Your task to perform on an android device: What's on my calendar today? Image 0: 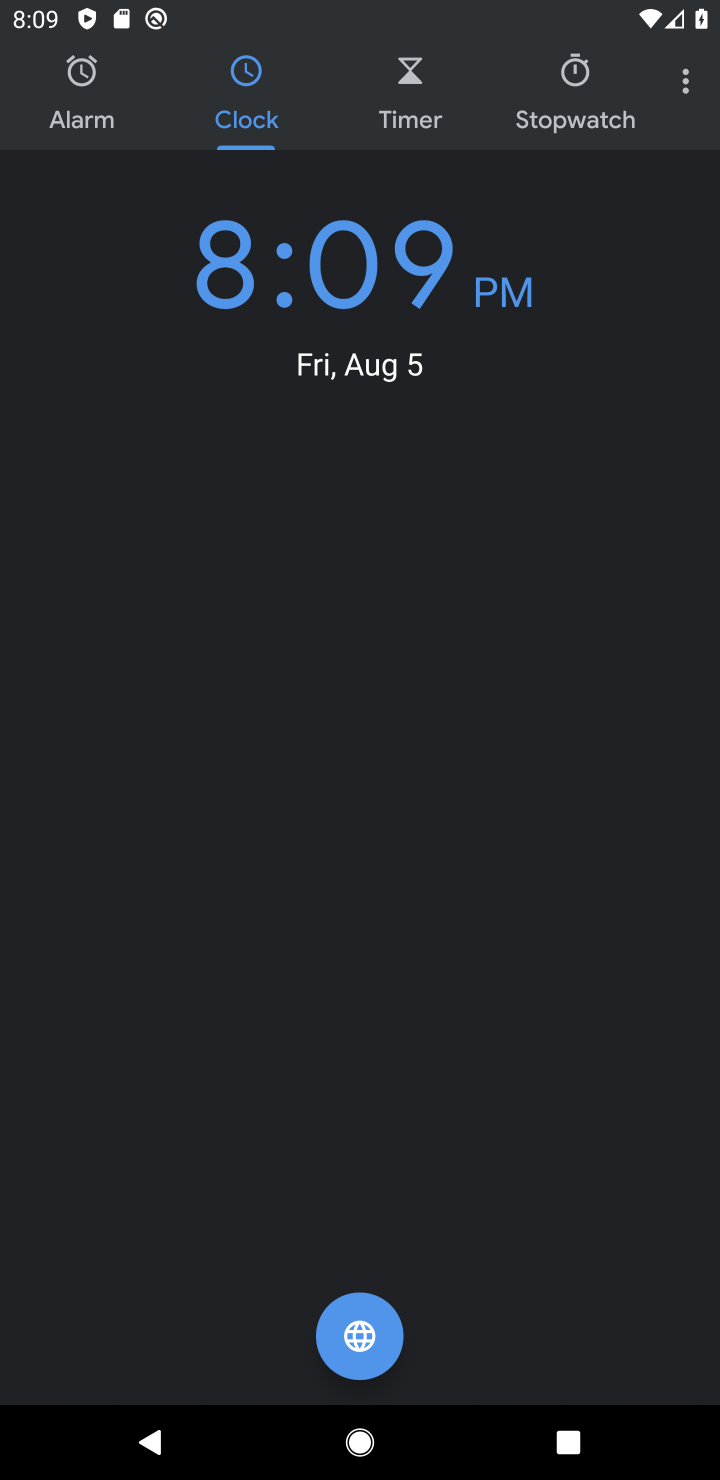
Step 0: press home button
Your task to perform on an android device: What's on my calendar today? Image 1: 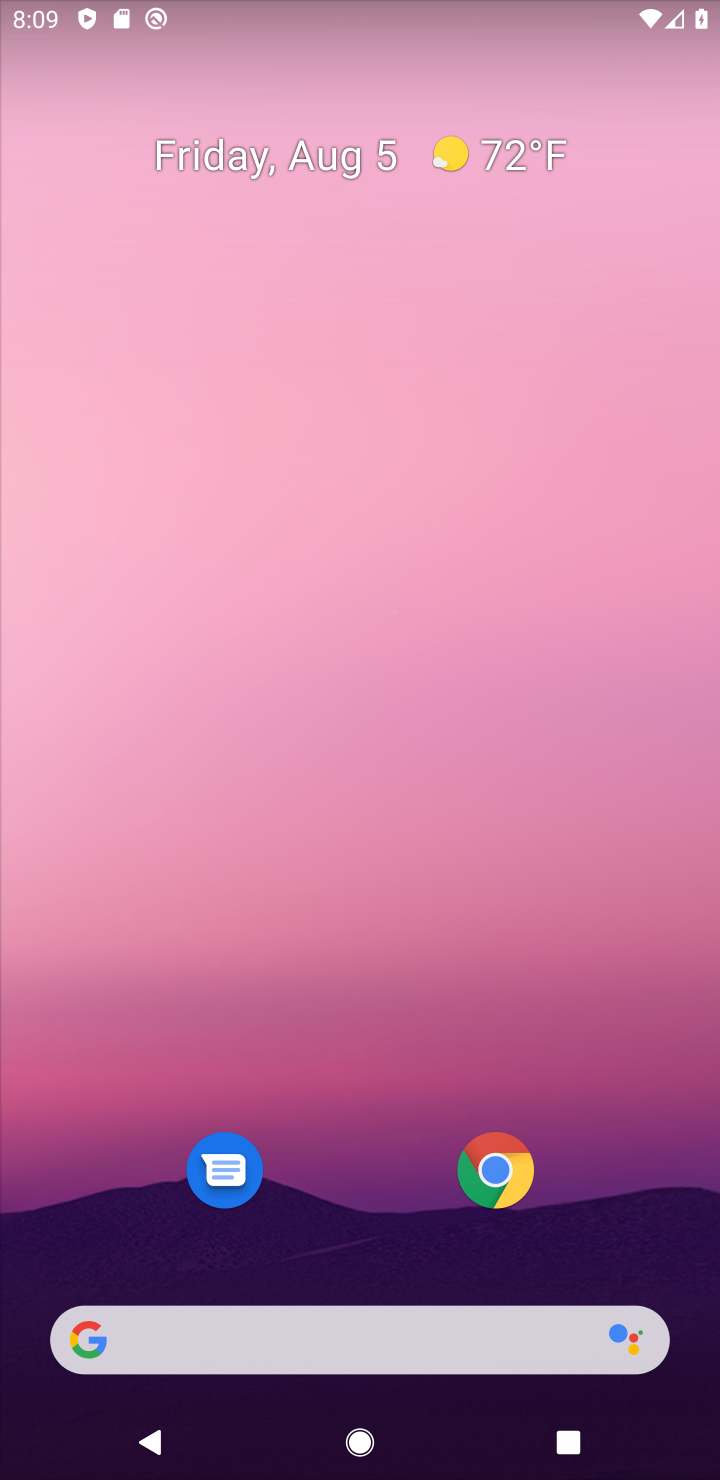
Step 1: drag from (654, 1242) to (507, 64)
Your task to perform on an android device: What's on my calendar today? Image 2: 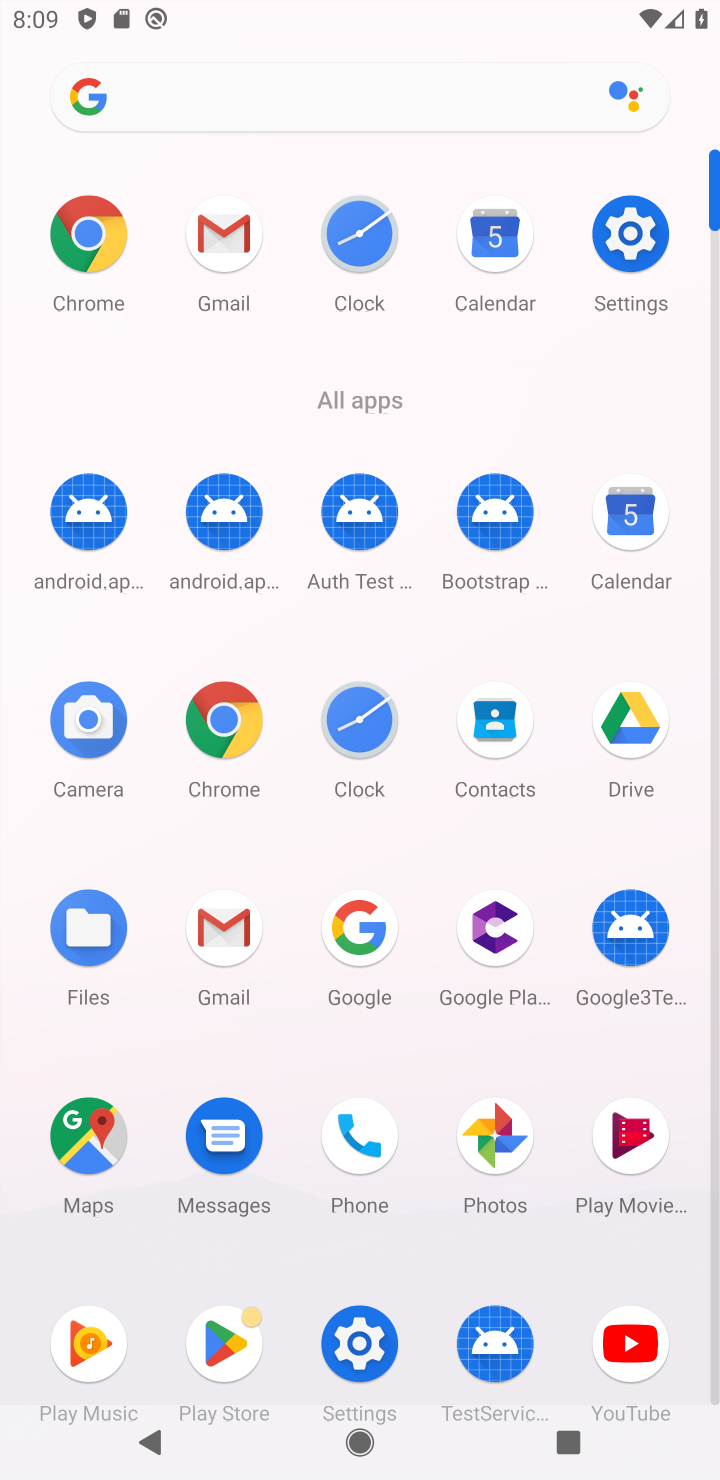
Step 2: click (629, 498)
Your task to perform on an android device: What's on my calendar today? Image 3: 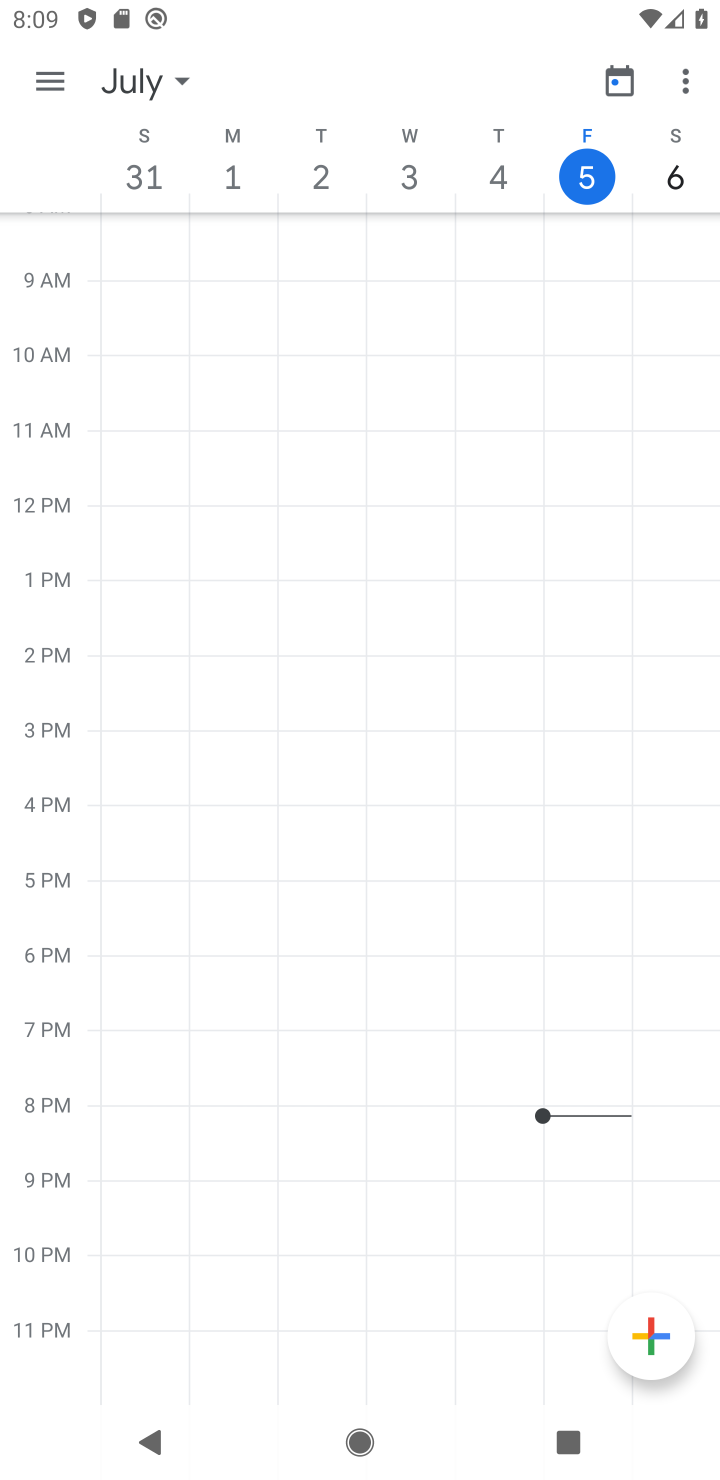
Step 3: click (60, 86)
Your task to perform on an android device: What's on my calendar today? Image 4: 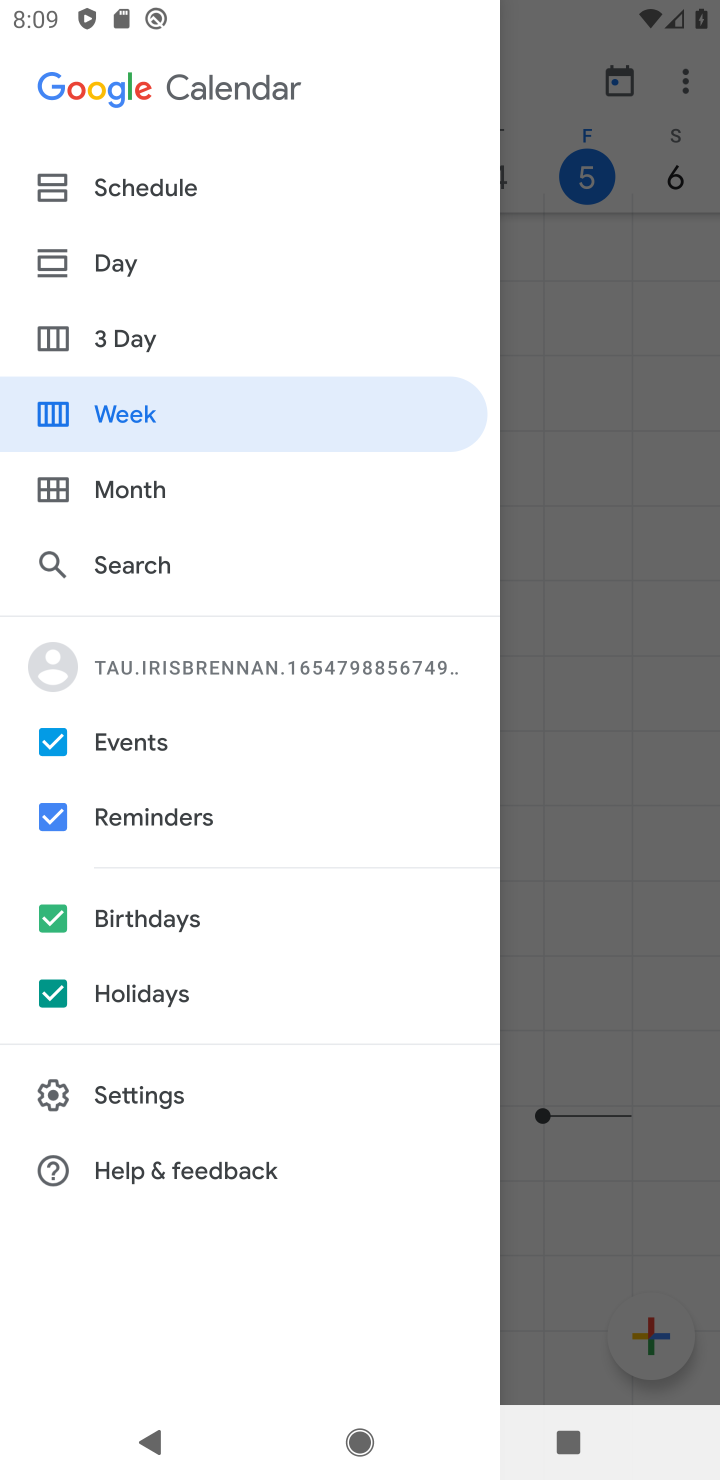
Step 4: click (117, 263)
Your task to perform on an android device: What's on my calendar today? Image 5: 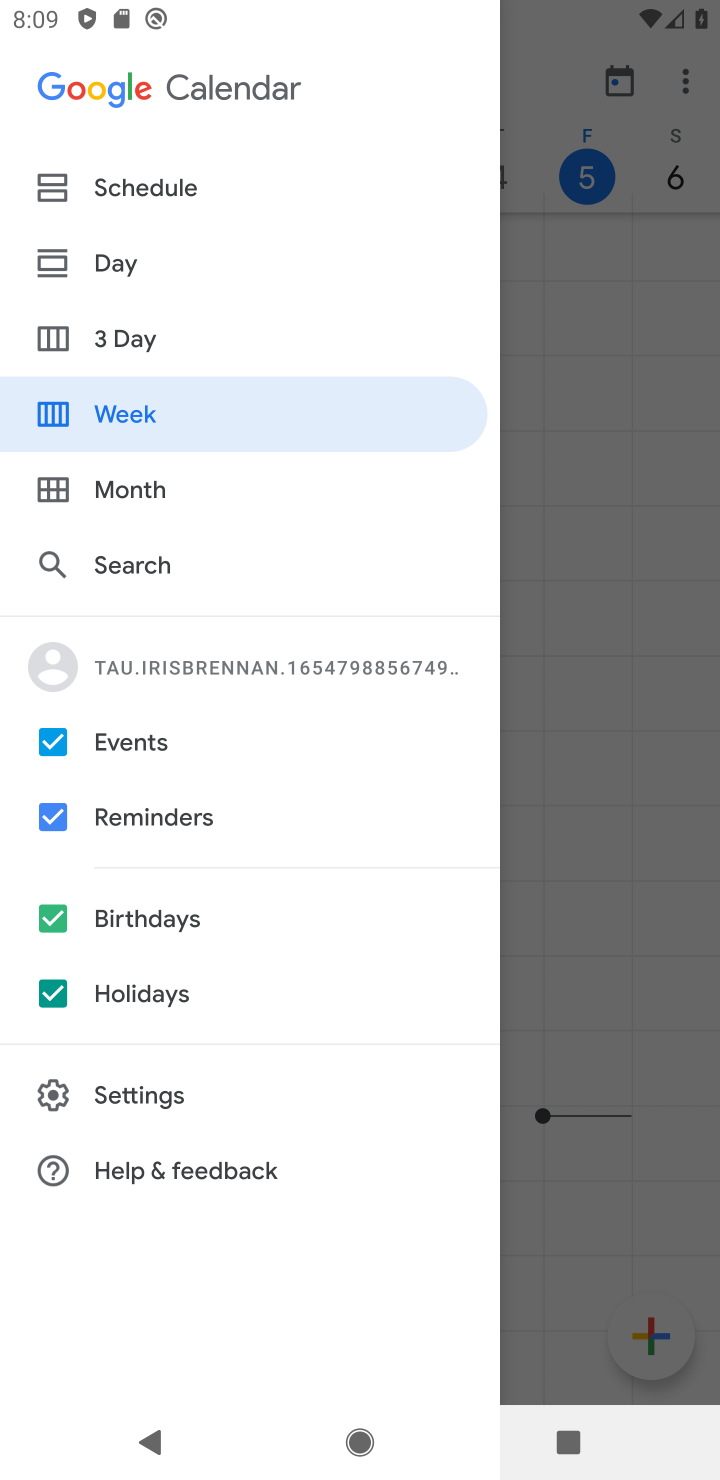
Step 5: click (71, 263)
Your task to perform on an android device: What's on my calendar today? Image 6: 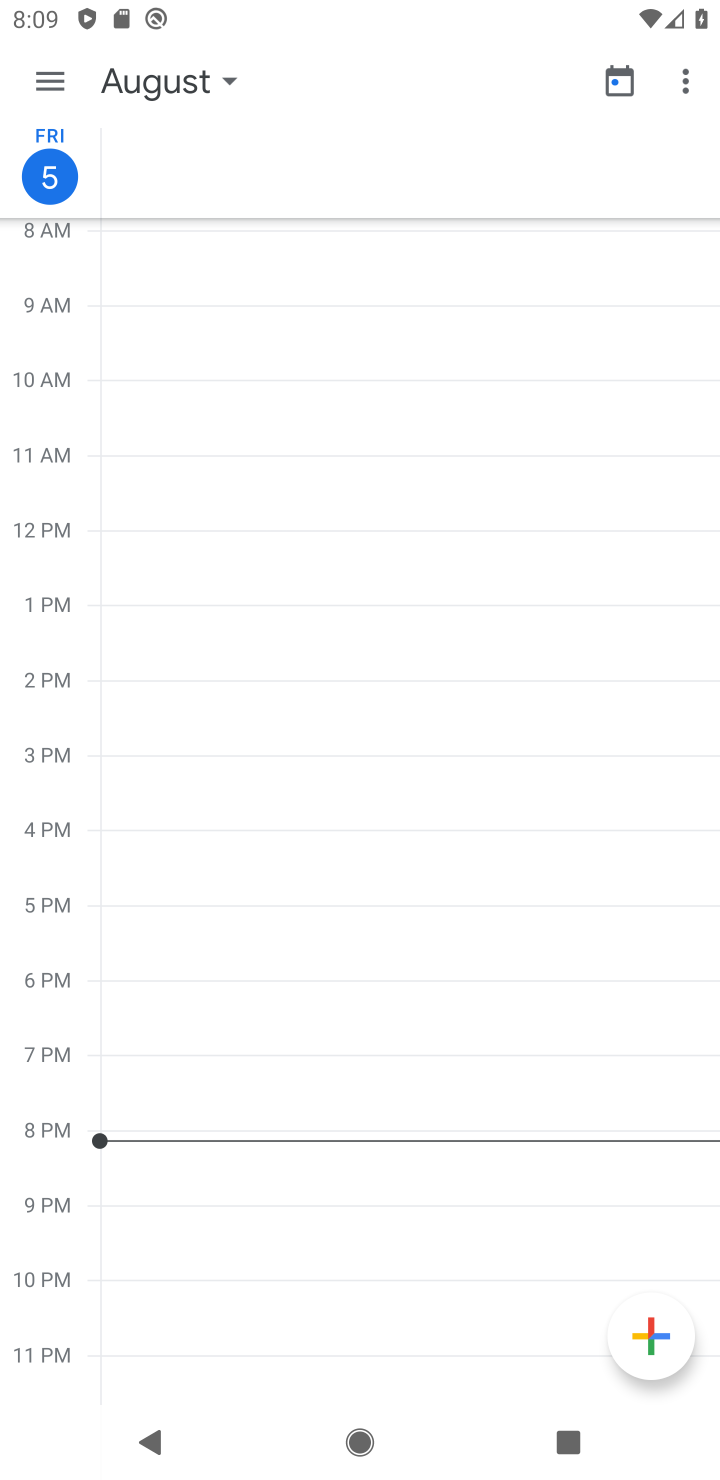
Step 6: task complete